Your task to perform on an android device: Open calendar and show me the second week of next month Image 0: 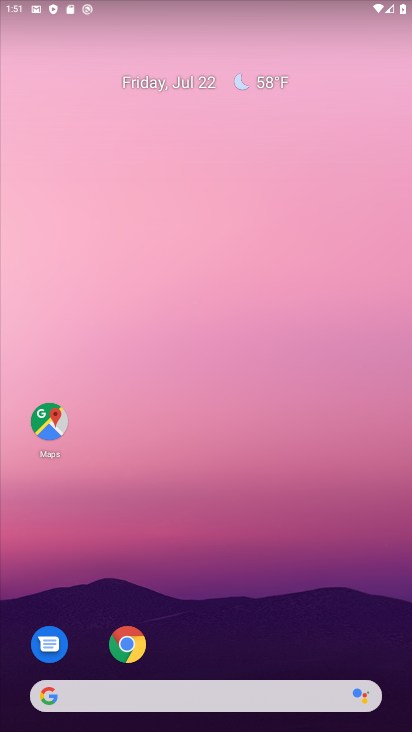
Step 0: drag from (196, 648) to (247, 286)
Your task to perform on an android device: Open calendar and show me the second week of next month Image 1: 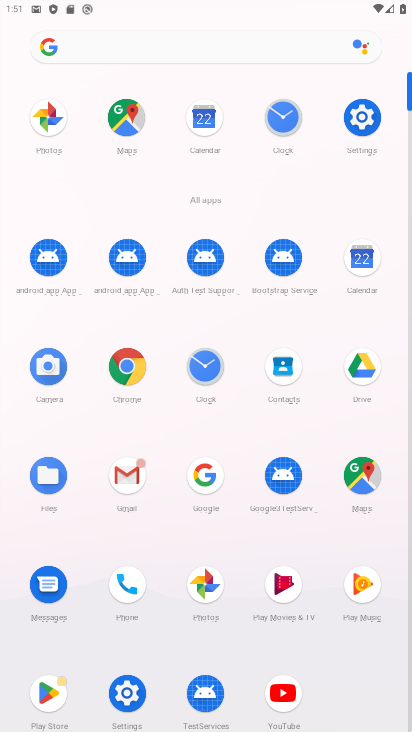
Step 1: click (367, 282)
Your task to perform on an android device: Open calendar and show me the second week of next month Image 2: 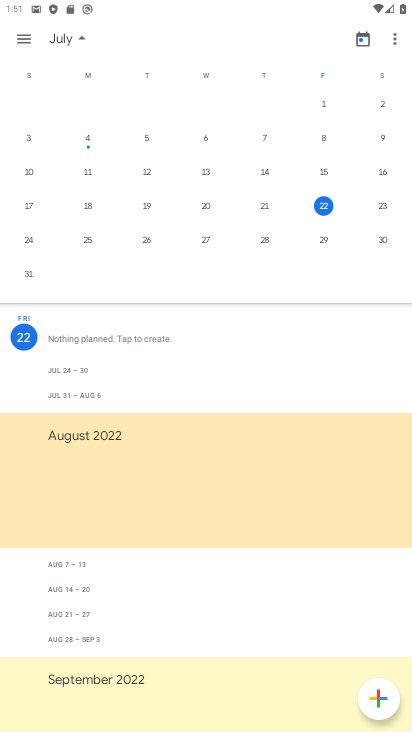
Step 2: click (85, 39)
Your task to perform on an android device: Open calendar and show me the second week of next month Image 3: 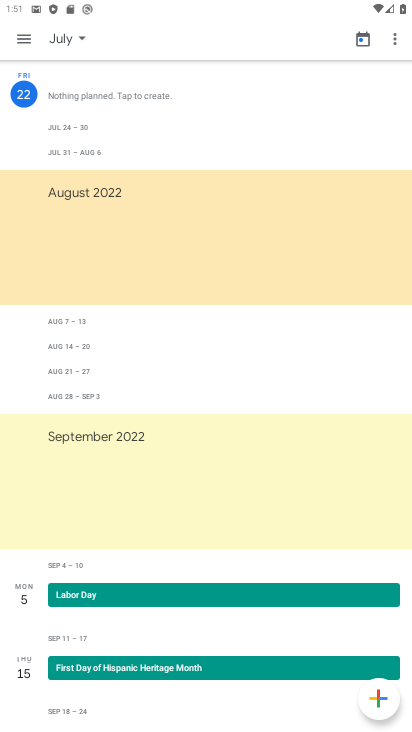
Step 3: click (85, 39)
Your task to perform on an android device: Open calendar and show me the second week of next month Image 4: 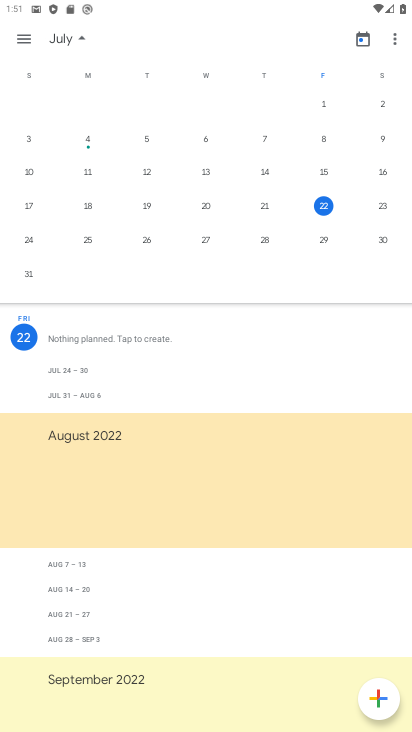
Step 4: drag from (393, 162) to (37, 171)
Your task to perform on an android device: Open calendar and show me the second week of next month Image 5: 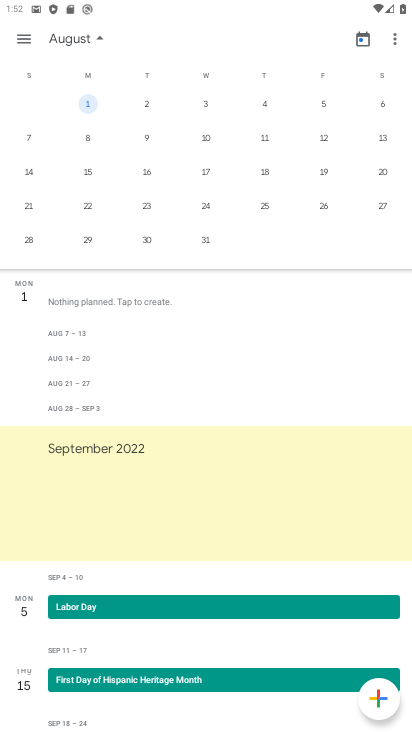
Step 5: click (26, 139)
Your task to perform on an android device: Open calendar and show me the second week of next month Image 6: 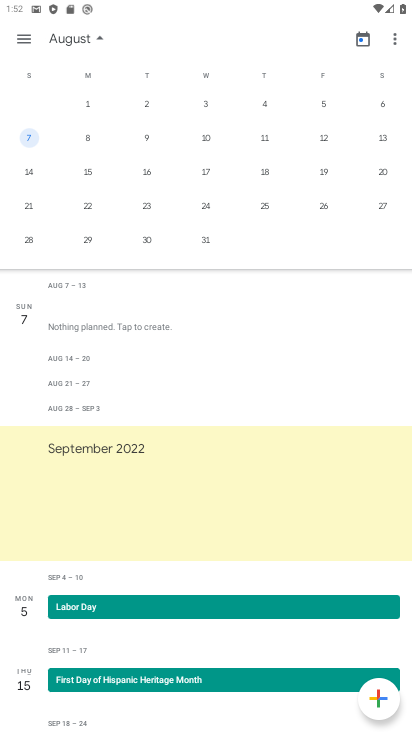
Step 6: task complete